Your task to perform on an android device: Go to internet settings Image 0: 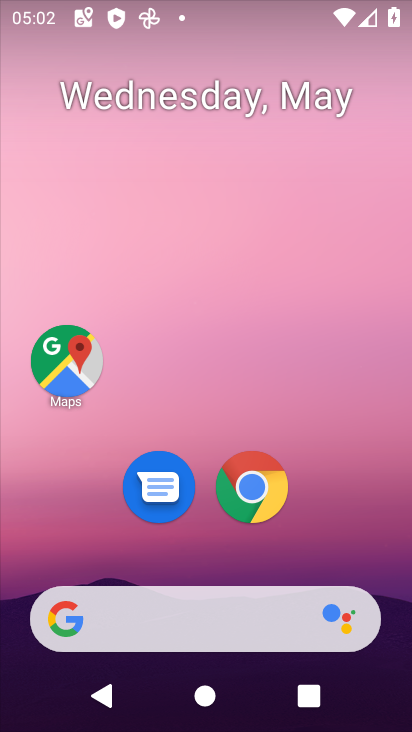
Step 0: drag from (350, 529) to (307, 83)
Your task to perform on an android device: Go to internet settings Image 1: 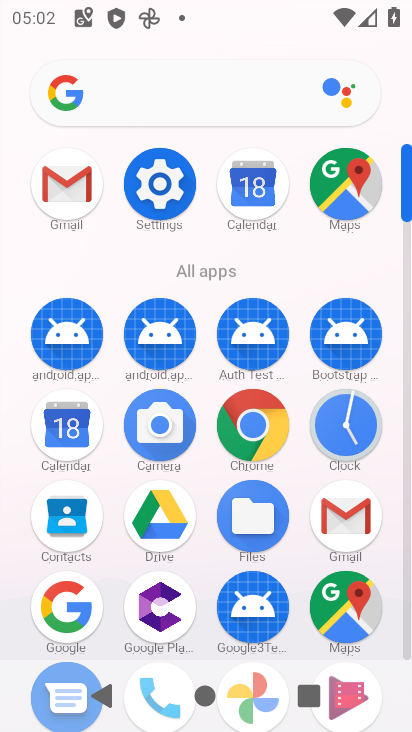
Step 1: click (155, 181)
Your task to perform on an android device: Go to internet settings Image 2: 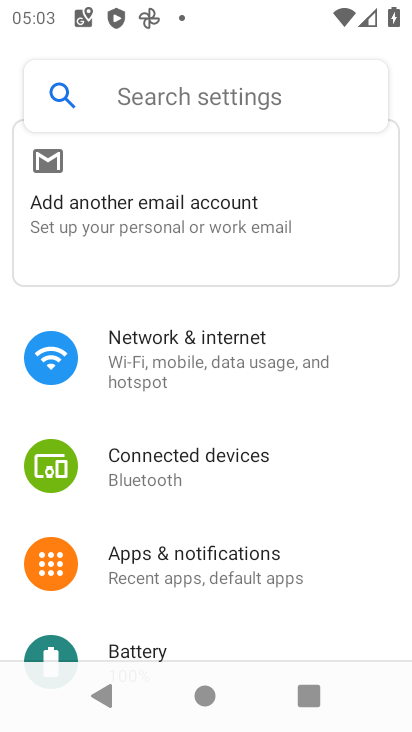
Step 2: click (147, 355)
Your task to perform on an android device: Go to internet settings Image 3: 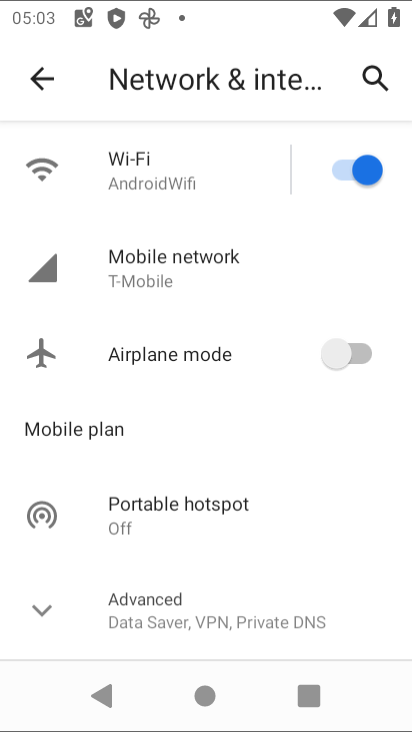
Step 3: task complete